Your task to perform on an android device: change notification settings in the gmail app Image 0: 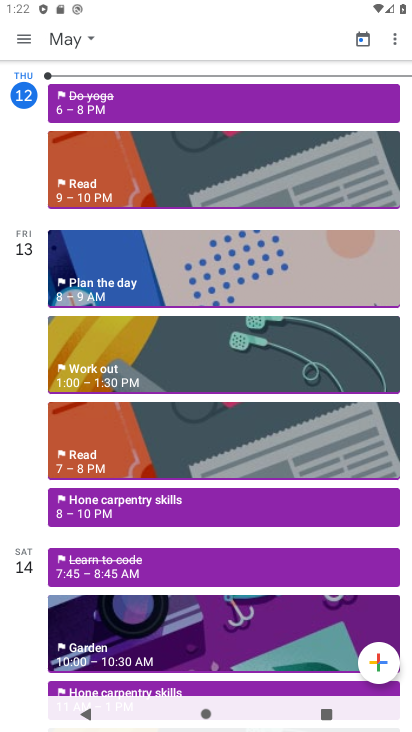
Step 0: press home button
Your task to perform on an android device: change notification settings in the gmail app Image 1: 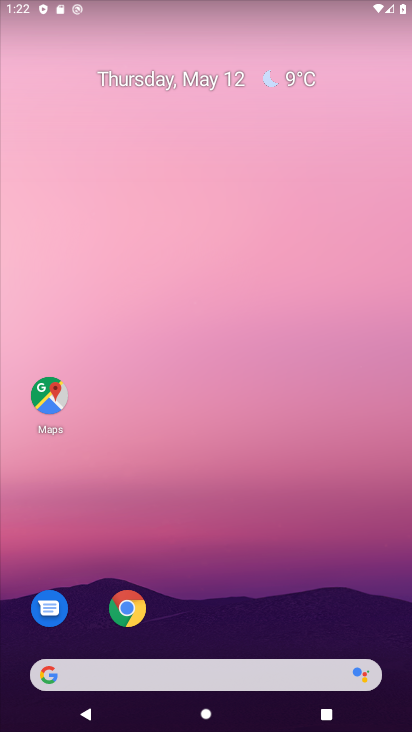
Step 1: drag from (239, 612) to (113, 163)
Your task to perform on an android device: change notification settings in the gmail app Image 2: 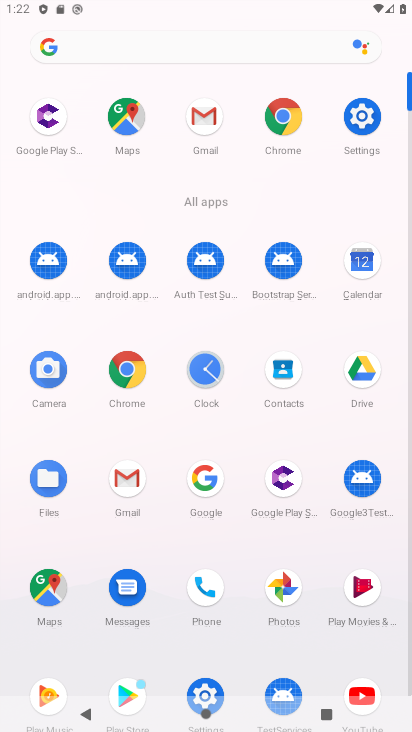
Step 2: click (201, 117)
Your task to perform on an android device: change notification settings in the gmail app Image 3: 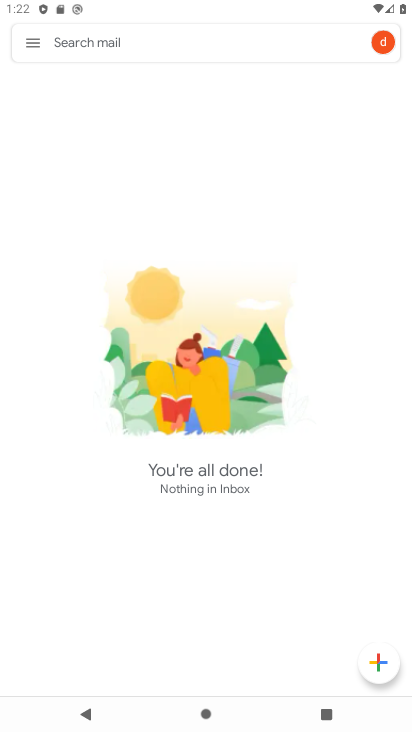
Step 3: click (23, 44)
Your task to perform on an android device: change notification settings in the gmail app Image 4: 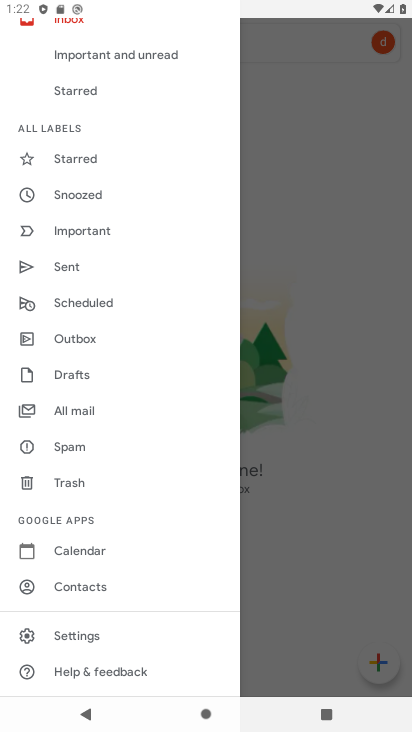
Step 4: click (81, 639)
Your task to perform on an android device: change notification settings in the gmail app Image 5: 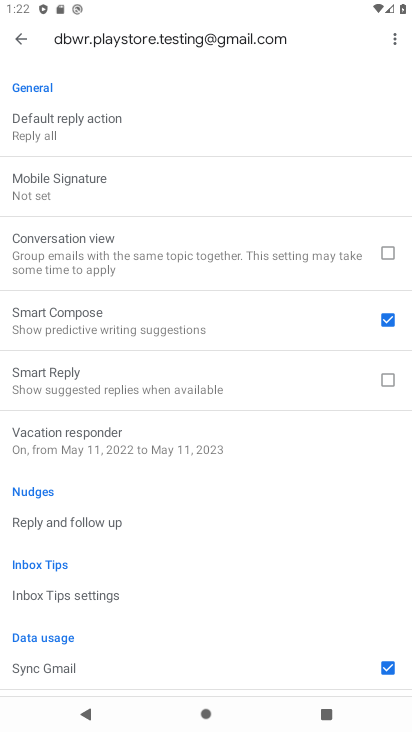
Step 5: drag from (154, 159) to (171, 473)
Your task to perform on an android device: change notification settings in the gmail app Image 6: 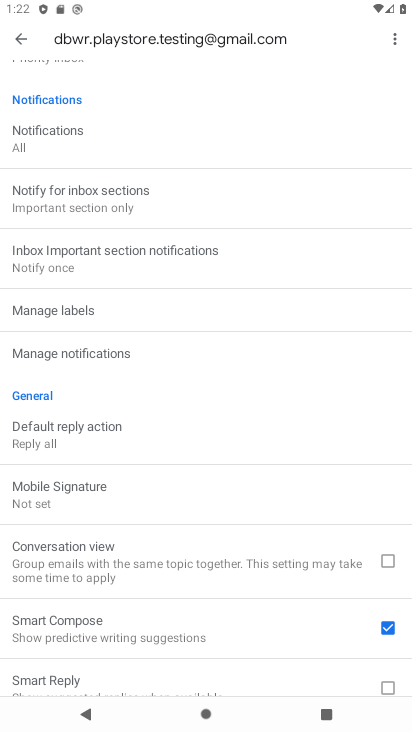
Step 6: click (135, 354)
Your task to perform on an android device: change notification settings in the gmail app Image 7: 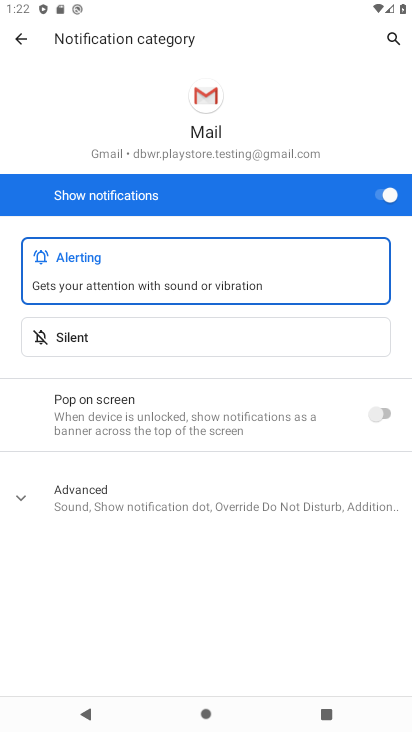
Step 7: click (387, 194)
Your task to perform on an android device: change notification settings in the gmail app Image 8: 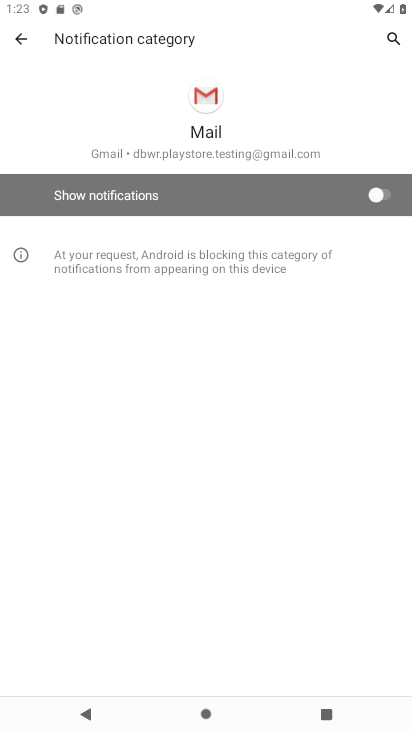
Step 8: task complete